Your task to perform on an android device: Open Google Image 0: 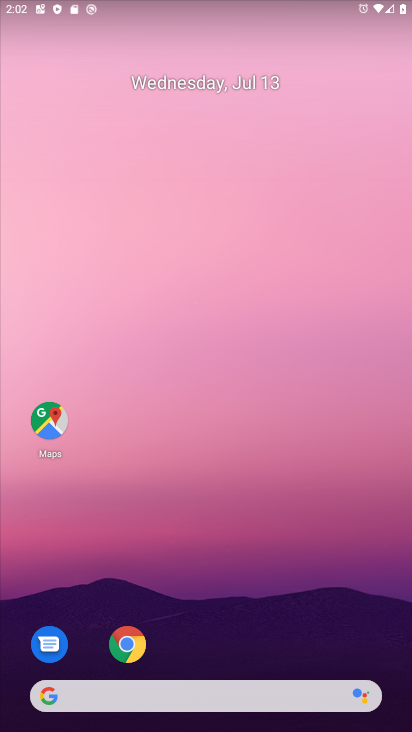
Step 0: click (209, 676)
Your task to perform on an android device: Open Google Image 1: 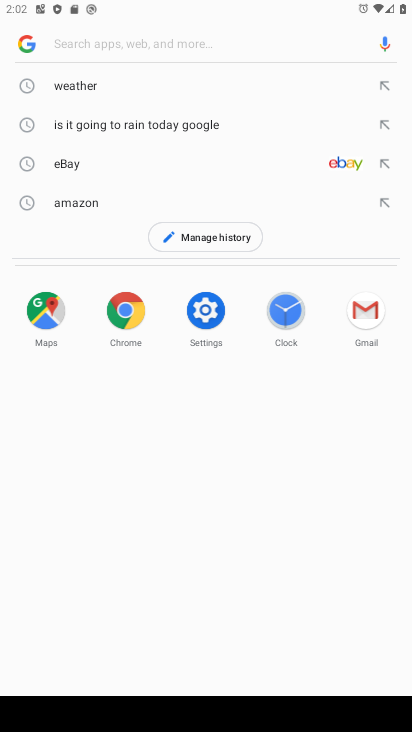
Step 1: task complete